Your task to perform on an android device: Search for pizza restaurants on Maps Image 0: 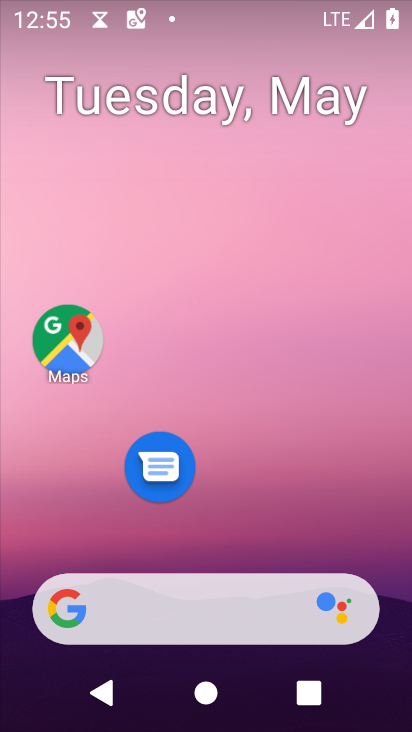
Step 0: click (62, 353)
Your task to perform on an android device: Search for pizza restaurants on Maps Image 1: 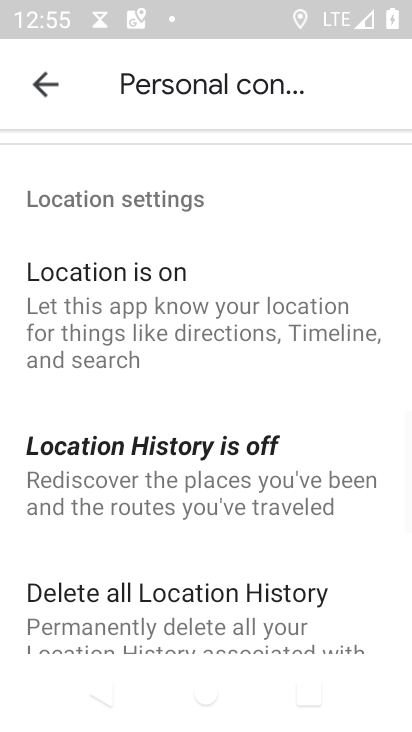
Step 1: click (47, 86)
Your task to perform on an android device: Search for pizza restaurants on Maps Image 2: 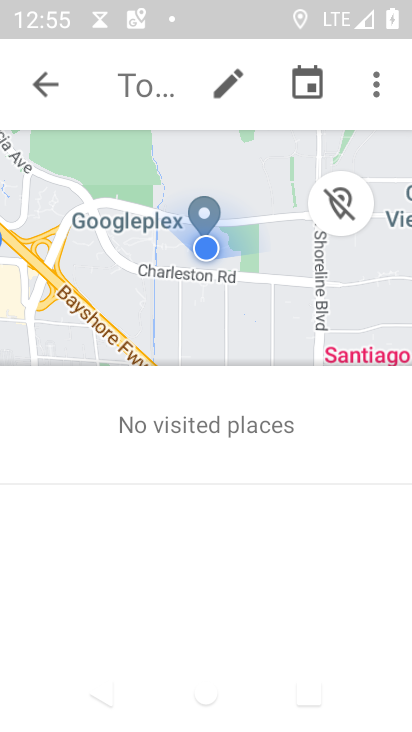
Step 2: click (44, 80)
Your task to perform on an android device: Search for pizza restaurants on Maps Image 3: 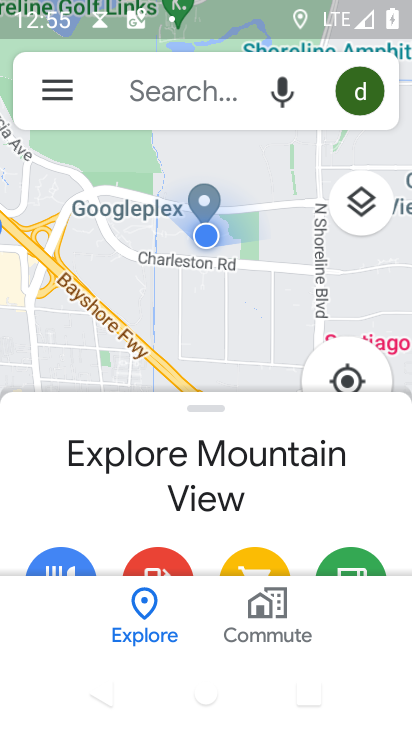
Step 3: click (191, 86)
Your task to perform on an android device: Search for pizza restaurants on Maps Image 4: 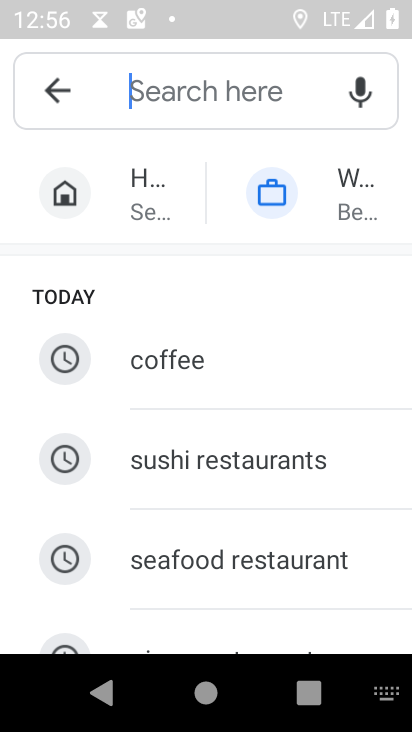
Step 4: type "Pizza restaurants"
Your task to perform on an android device: Search for pizza restaurants on Maps Image 5: 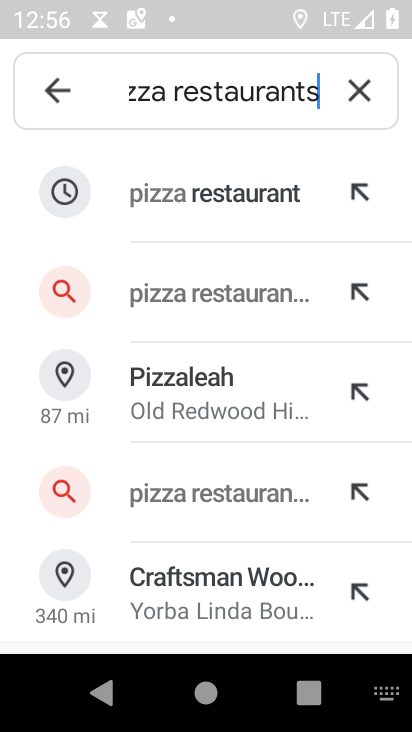
Step 5: click (195, 193)
Your task to perform on an android device: Search for pizza restaurants on Maps Image 6: 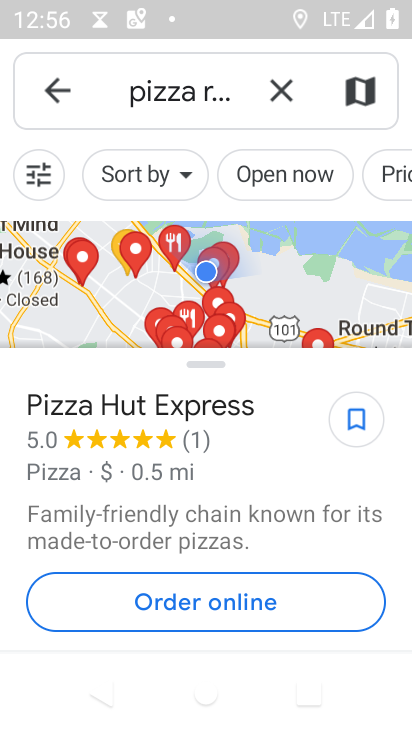
Step 6: task complete